Your task to perform on an android device: Open Chrome and go to settings Image 0: 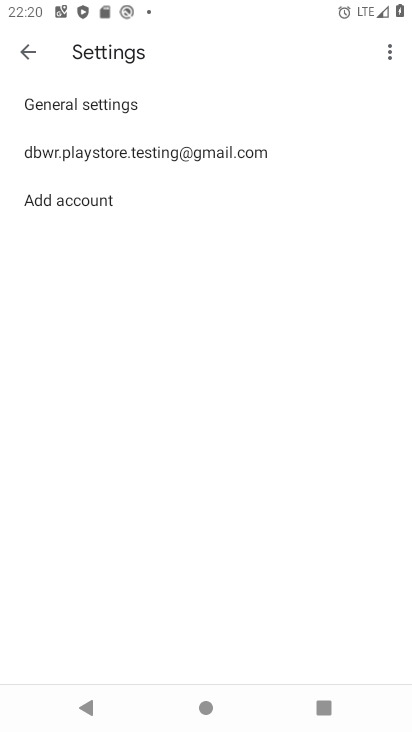
Step 0: press home button
Your task to perform on an android device: Open Chrome and go to settings Image 1: 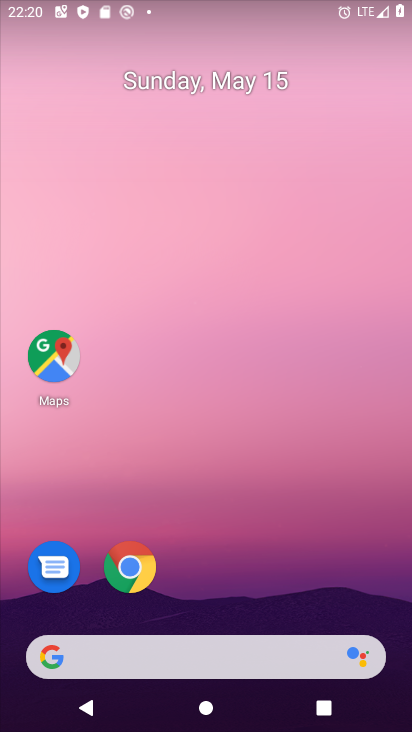
Step 1: click (111, 572)
Your task to perform on an android device: Open Chrome and go to settings Image 2: 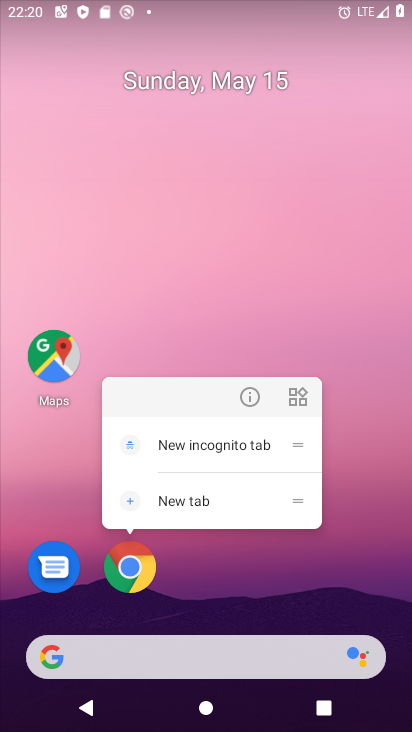
Step 2: click (141, 569)
Your task to perform on an android device: Open Chrome and go to settings Image 3: 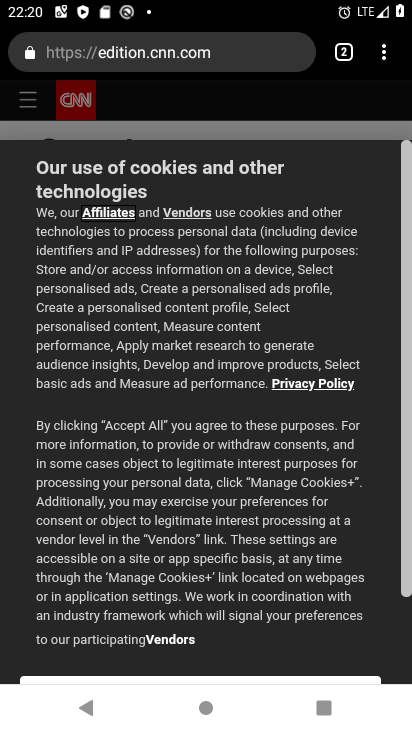
Step 3: click (384, 51)
Your task to perform on an android device: Open Chrome and go to settings Image 4: 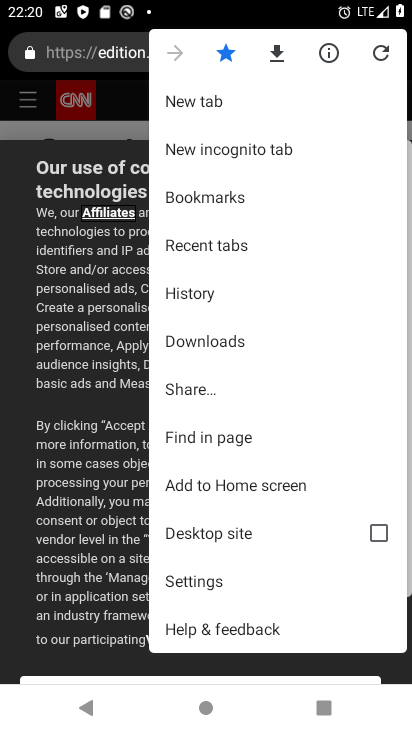
Step 4: click (203, 582)
Your task to perform on an android device: Open Chrome and go to settings Image 5: 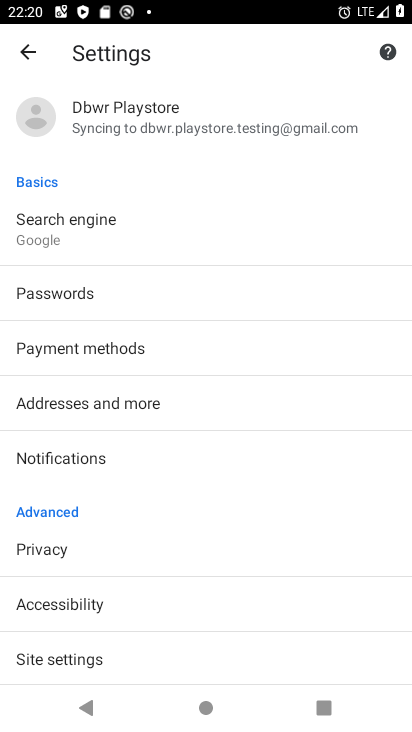
Step 5: task complete